Your task to perform on an android device: open the mobile data screen to see how much data has been used Image 0: 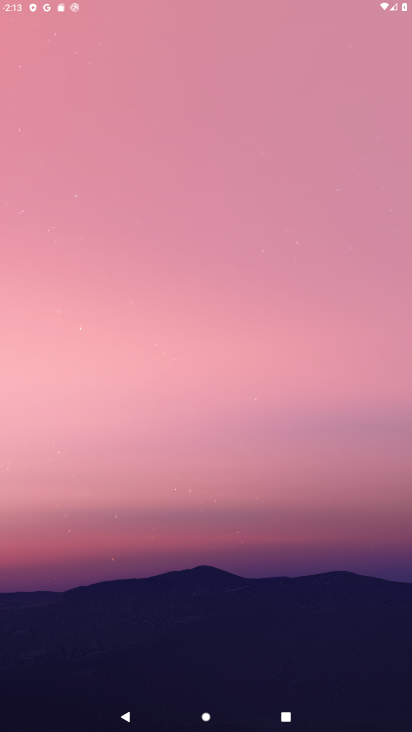
Step 0: click (263, 637)
Your task to perform on an android device: open the mobile data screen to see how much data has been used Image 1: 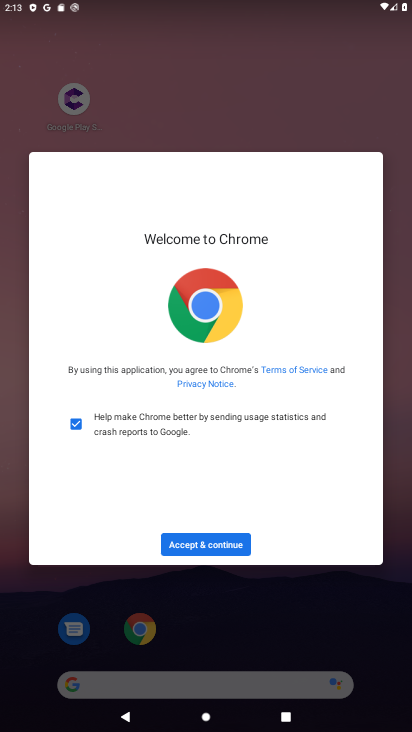
Step 1: press home button
Your task to perform on an android device: open the mobile data screen to see how much data has been used Image 2: 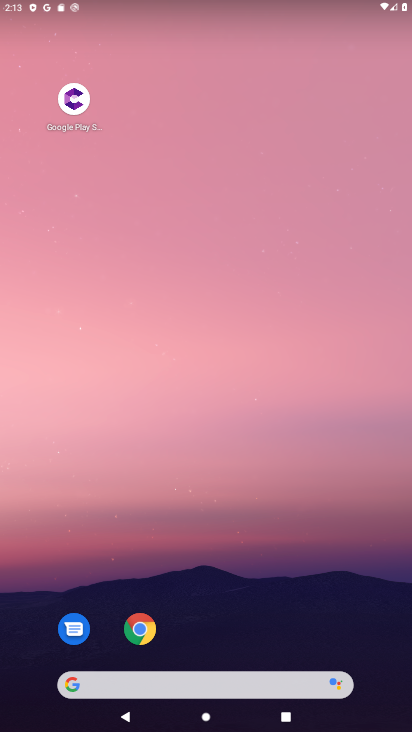
Step 2: drag from (240, 625) to (267, 43)
Your task to perform on an android device: open the mobile data screen to see how much data has been used Image 3: 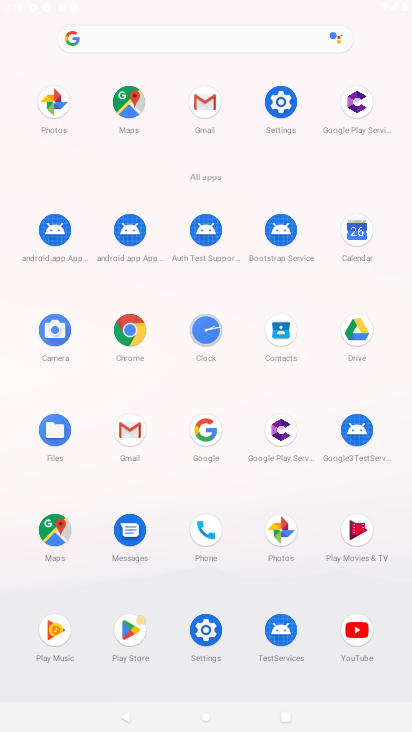
Step 3: click (279, 127)
Your task to perform on an android device: open the mobile data screen to see how much data has been used Image 4: 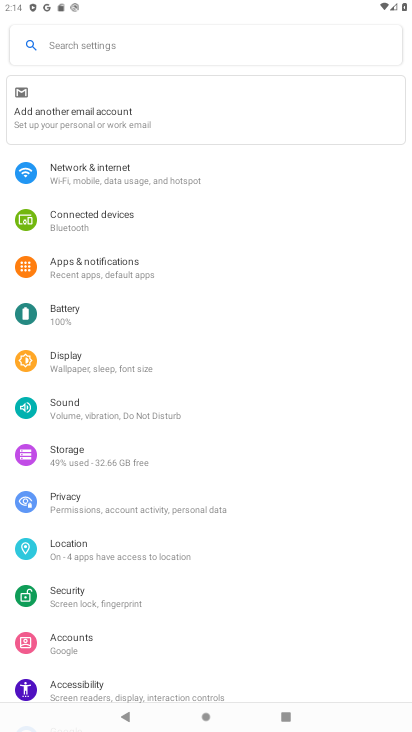
Step 4: click (119, 164)
Your task to perform on an android device: open the mobile data screen to see how much data has been used Image 5: 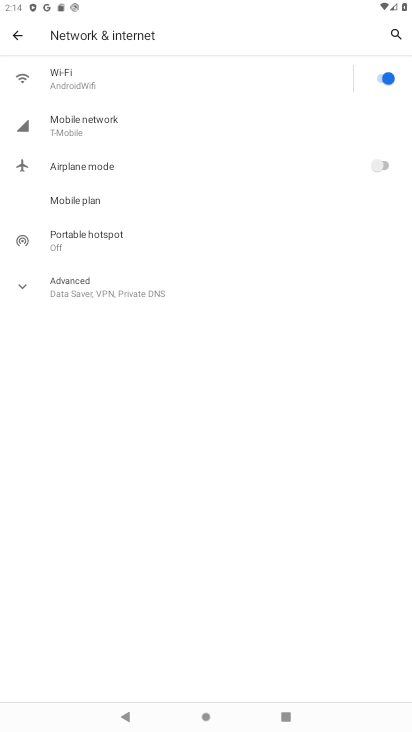
Step 5: click (98, 132)
Your task to perform on an android device: open the mobile data screen to see how much data has been used Image 6: 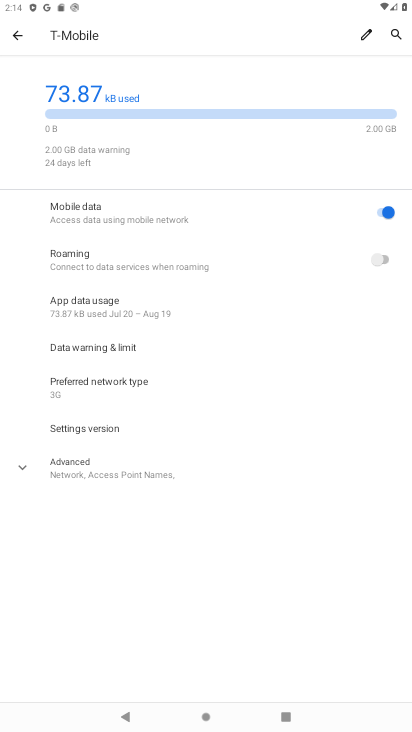
Step 6: task complete